Your task to perform on an android device: Open Android settings Image 0: 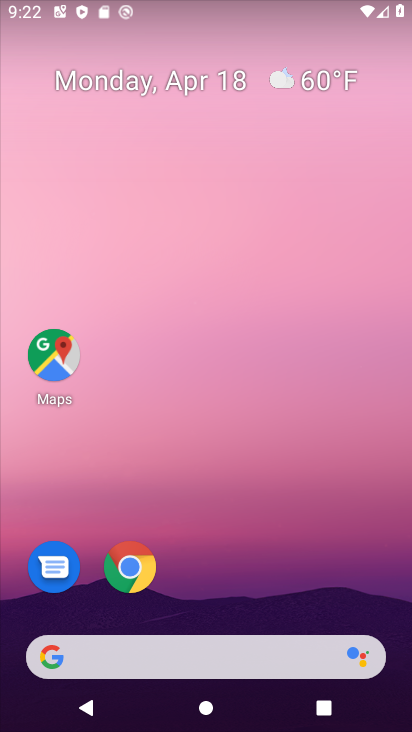
Step 0: drag from (203, 573) to (237, 66)
Your task to perform on an android device: Open Android settings Image 1: 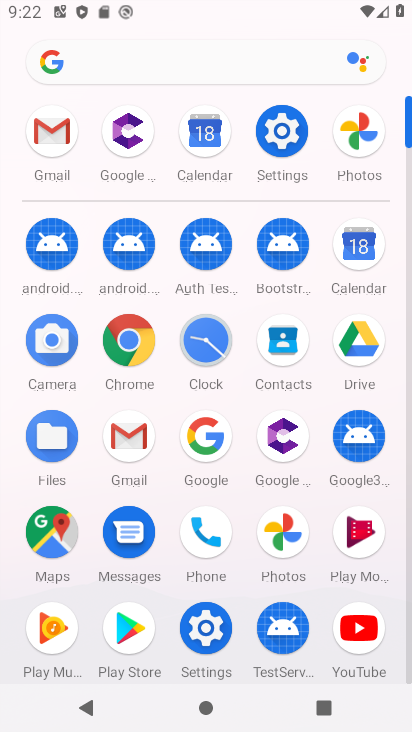
Step 1: click (282, 157)
Your task to perform on an android device: Open Android settings Image 2: 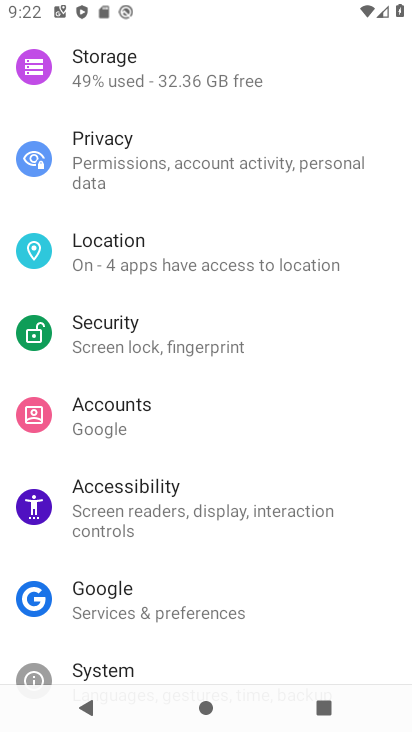
Step 2: drag from (204, 576) to (214, 250)
Your task to perform on an android device: Open Android settings Image 3: 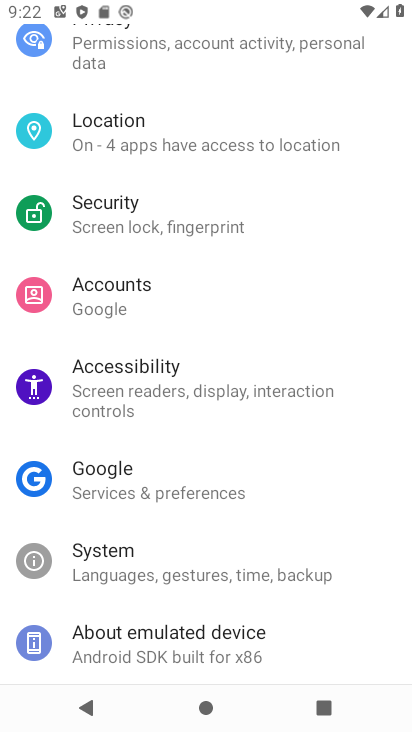
Step 3: click (206, 635)
Your task to perform on an android device: Open Android settings Image 4: 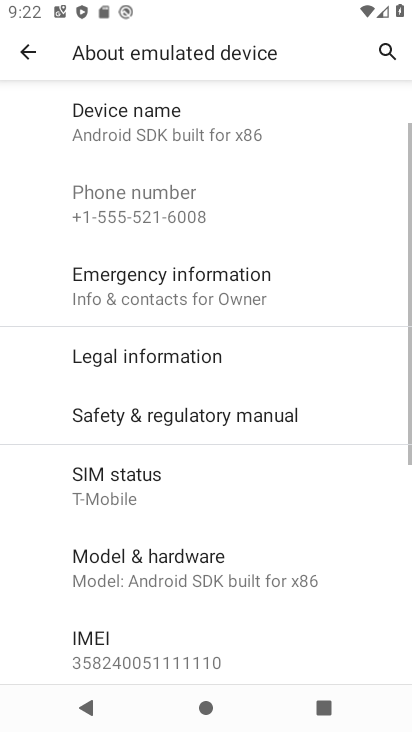
Step 4: drag from (192, 189) to (216, 638)
Your task to perform on an android device: Open Android settings Image 5: 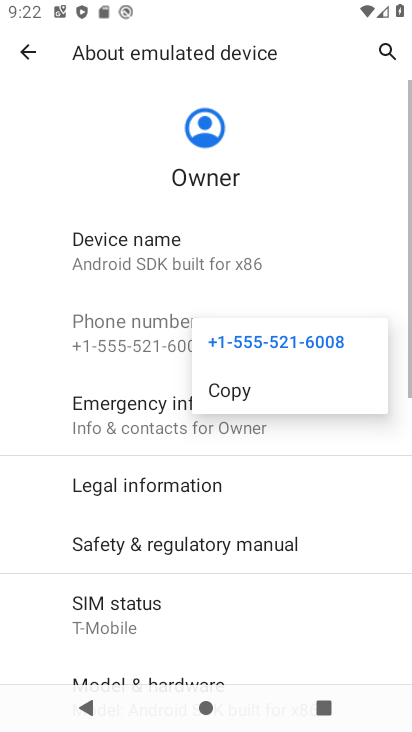
Step 5: drag from (61, 496) to (46, 296)
Your task to perform on an android device: Open Android settings Image 6: 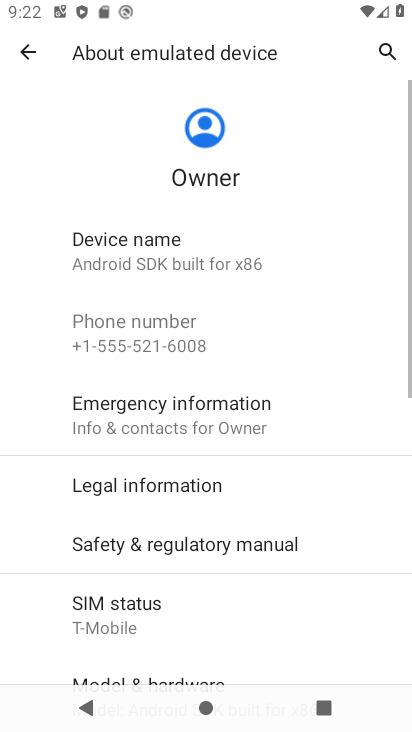
Step 6: drag from (201, 586) to (203, 277)
Your task to perform on an android device: Open Android settings Image 7: 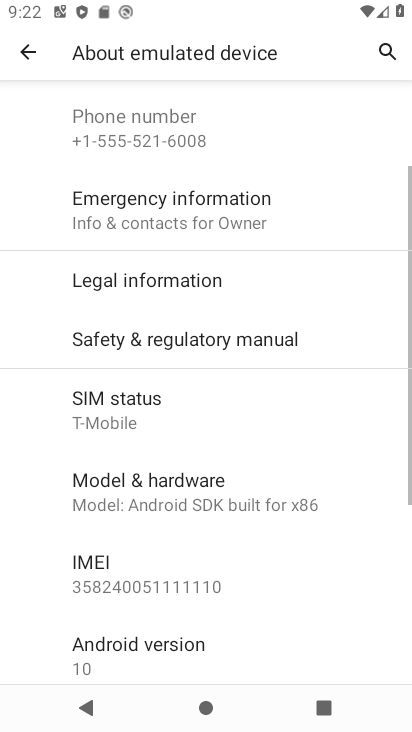
Step 7: click (189, 650)
Your task to perform on an android device: Open Android settings Image 8: 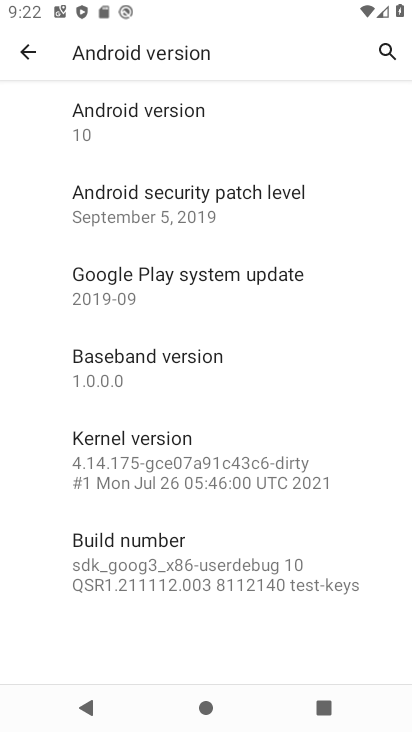
Step 8: task complete